Your task to perform on an android device: change the clock display to show seconds Image 0: 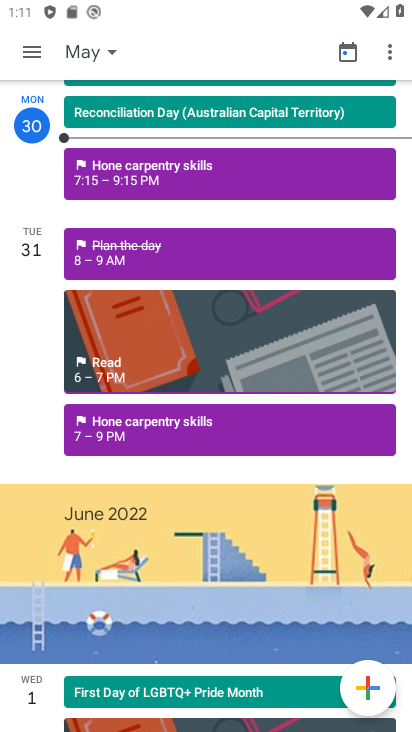
Step 0: press home button
Your task to perform on an android device: change the clock display to show seconds Image 1: 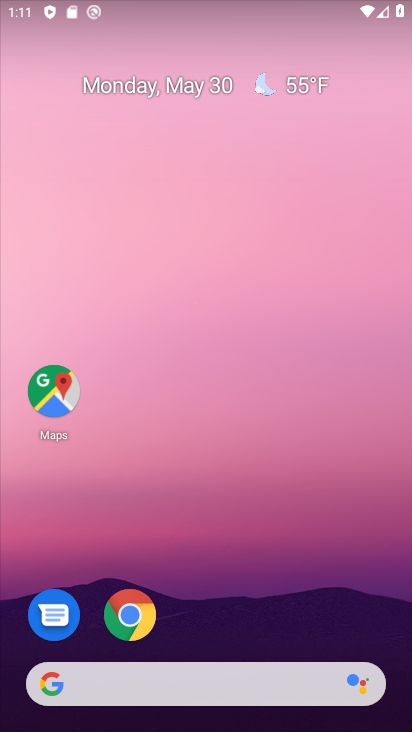
Step 1: drag from (209, 624) to (306, 88)
Your task to perform on an android device: change the clock display to show seconds Image 2: 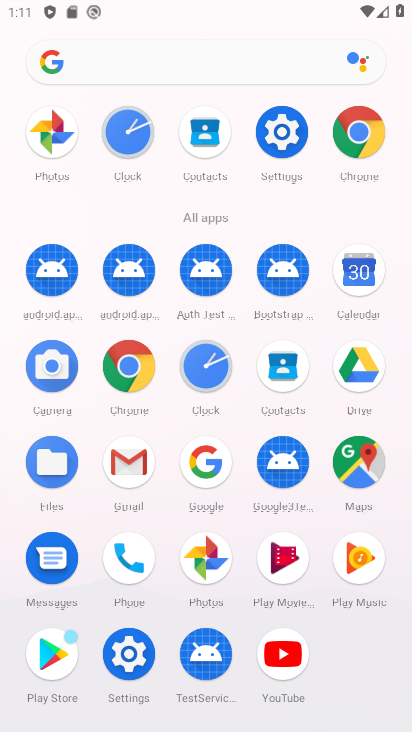
Step 2: click (211, 384)
Your task to perform on an android device: change the clock display to show seconds Image 3: 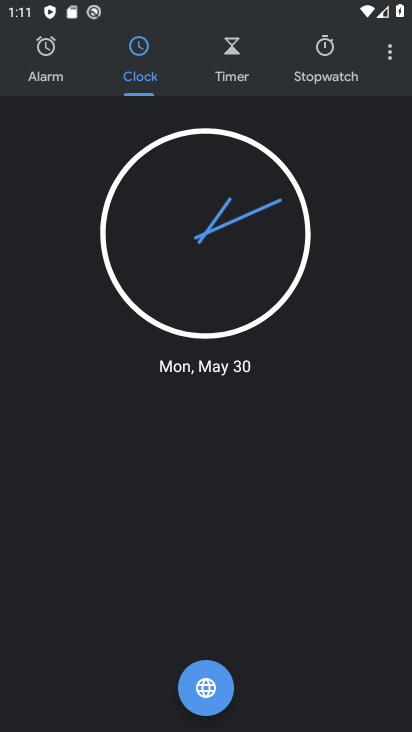
Step 3: click (394, 62)
Your task to perform on an android device: change the clock display to show seconds Image 4: 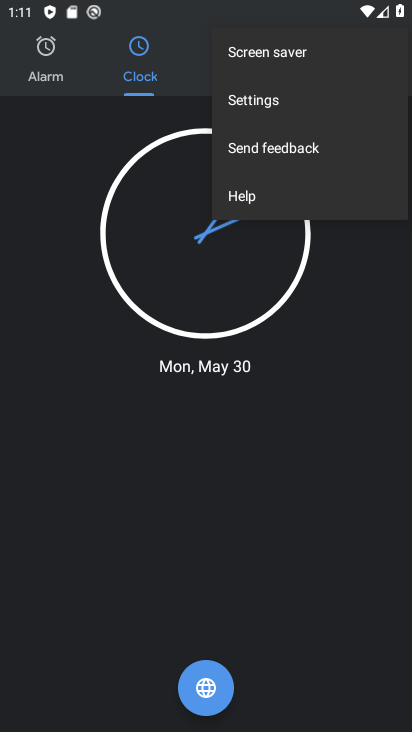
Step 4: click (363, 95)
Your task to perform on an android device: change the clock display to show seconds Image 5: 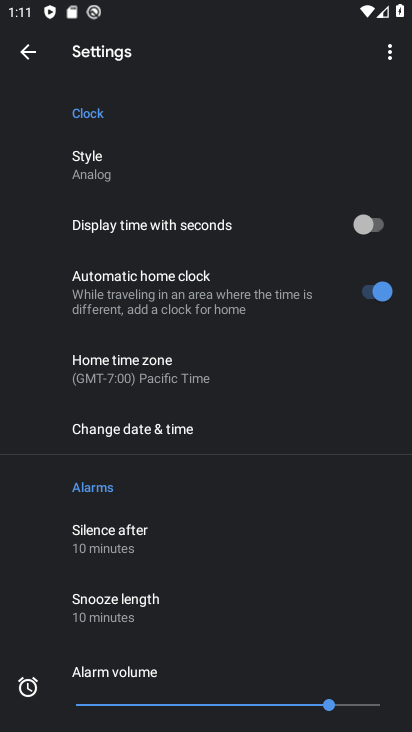
Step 5: click (391, 219)
Your task to perform on an android device: change the clock display to show seconds Image 6: 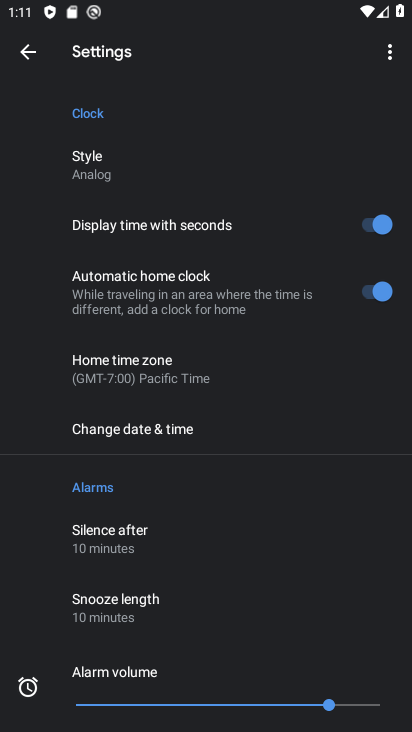
Step 6: task complete